Your task to perform on an android device: move an email to a new category in the gmail app Image 0: 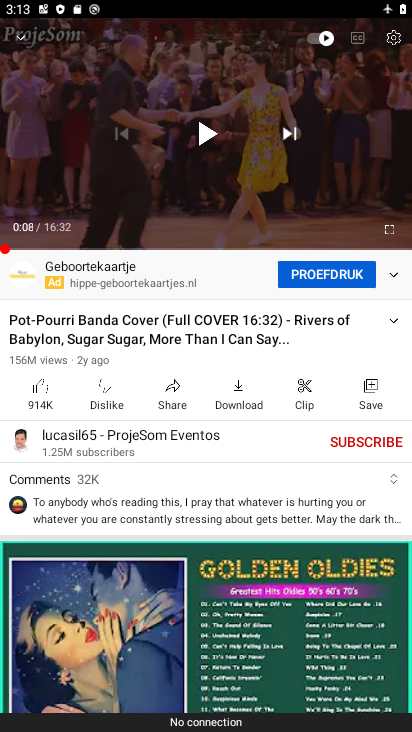
Step 0: press home button
Your task to perform on an android device: move an email to a new category in the gmail app Image 1: 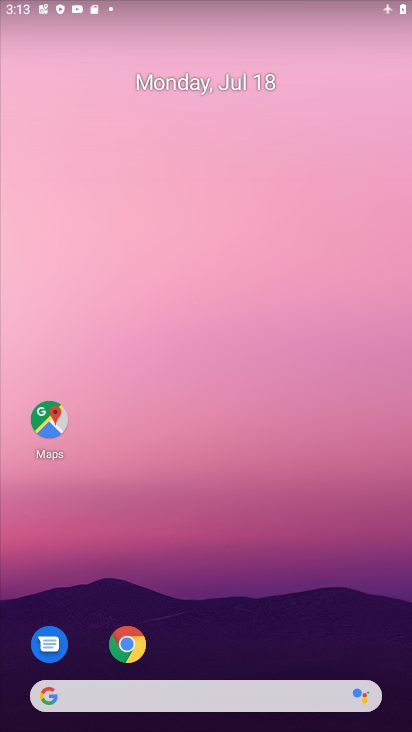
Step 1: drag from (393, 656) to (303, 157)
Your task to perform on an android device: move an email to a new category in the gmail app Image 2: 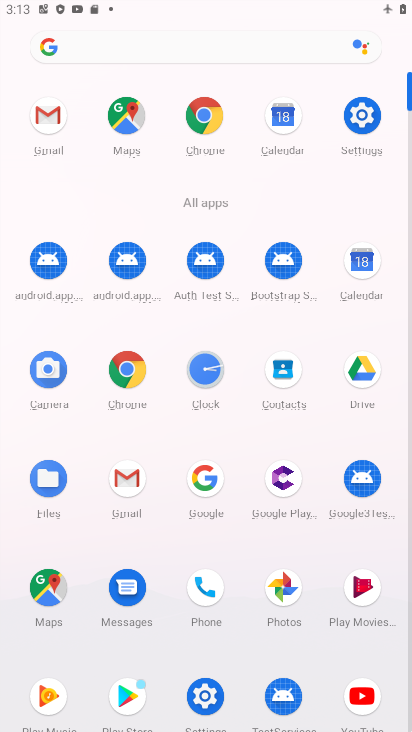
Step 2: click (126, 482)
Your task to perform on an android device: move an email to a new category in the gmail app Image 3: 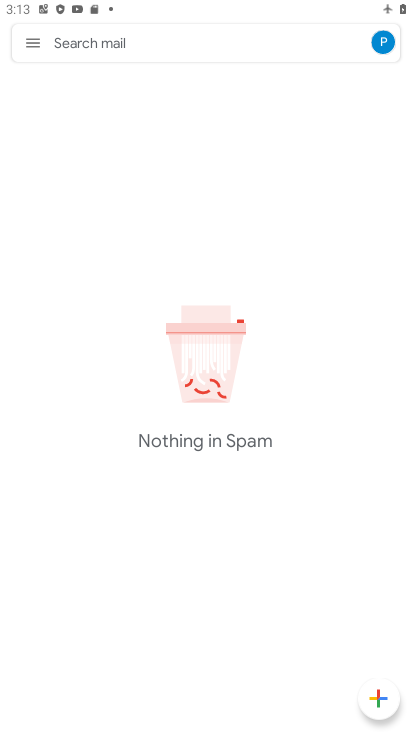
Step 3: click (33, 48)
Your task to perform on an android device: move an email to a new category in the gmail app Image 4: 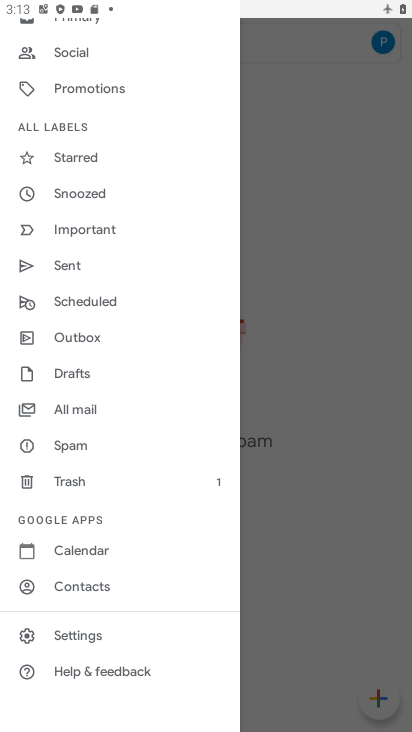
Step 4: click (76, 403)
Your task to perform on an android device: move an email to a new category in the gmail app Image 5: 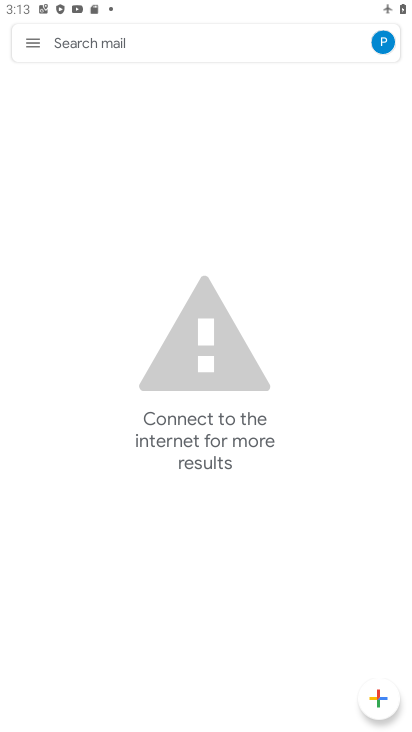
Step 5: task complete